Your task to perform on an android device: toggle translation in the chrome app Image 0: 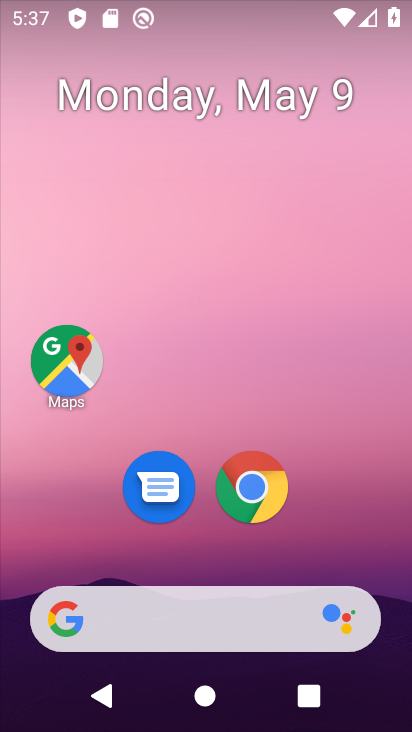
Step 0: drag from (334, 548) to (280, 171)
Your task to perform on an android device: toggle translation in the chrome app Image 1: 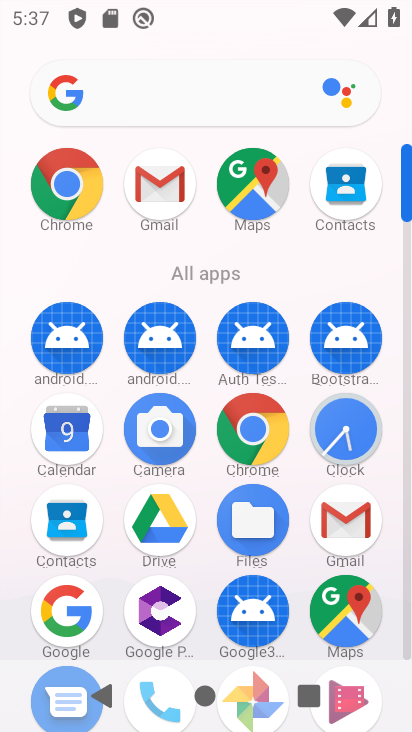
Step 1: click (63, 212)
Your task to perform on an android device: toggle translation in the chrome app Image 2: 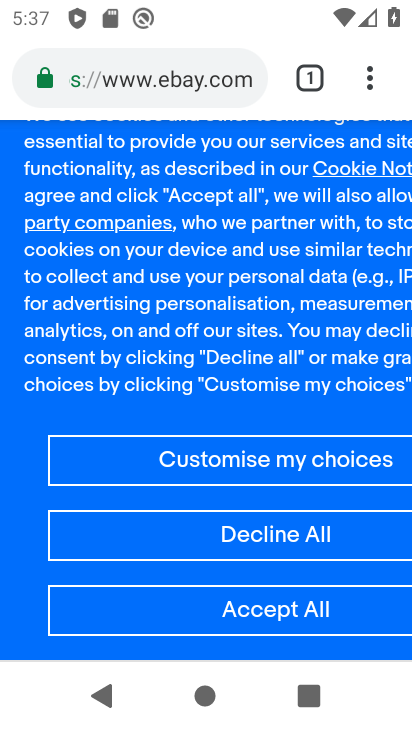
Step 2: click (368, 79)
Your task to perform on an android device: toggle translation in the chrome app Image 3: 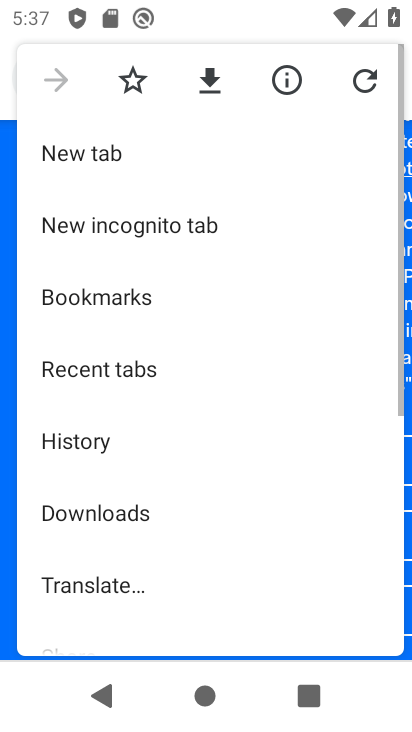
Step 3: drag from (180, 566) to (192, 169)
Your task to perform on an android device: toggle translation in the chrome app Image 4: 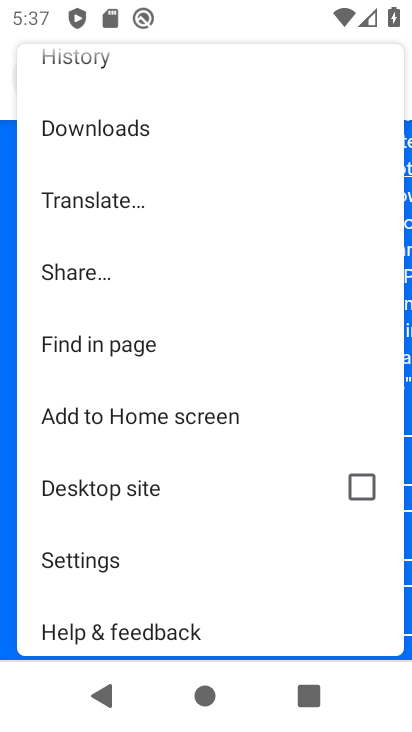
Step 4: click (104, 565)
Your task to perform on an android device: toggle translation in the chrome app Image 5: 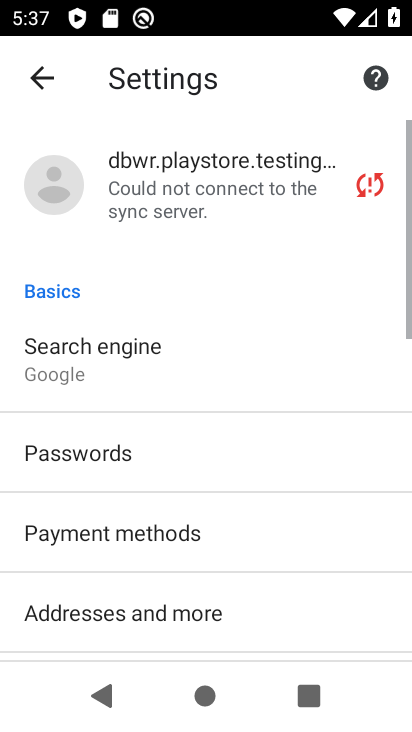
Step 5: drag from (224, 577) to (268, 237)
Your task to perform on an android device: toggle translation in the chrome app Image 6: 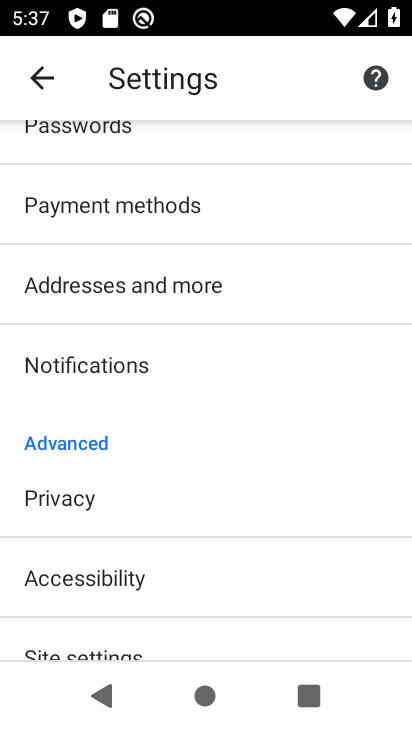
Step 6: drag from (164, 584) to (268, 268)
Your task to perform on an android device: toggle translation in the chrome app Image 7: 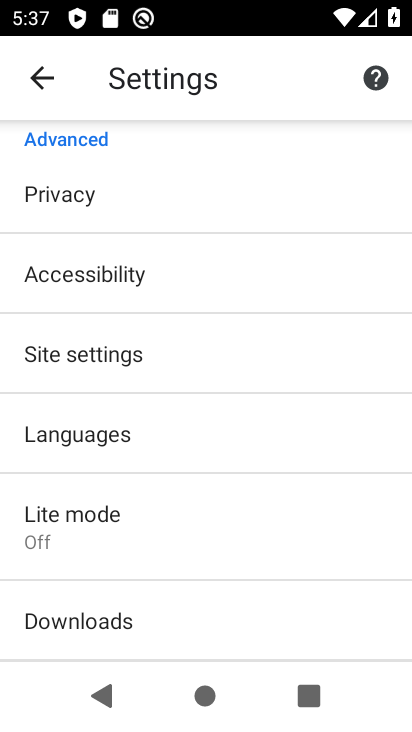
Step 7: click (74, 442)
Your task to perform on an android device: toggle translation in the chrome app Image 8: 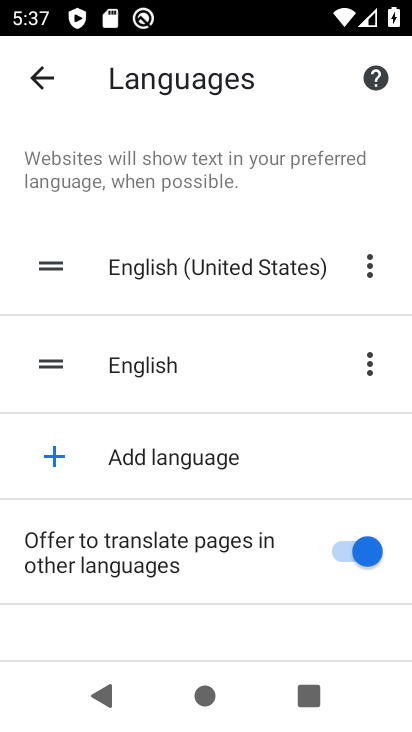
Step 8: click (347, 561)
Your task to perform on an android device: toggle translation in the chrome app Image 9: 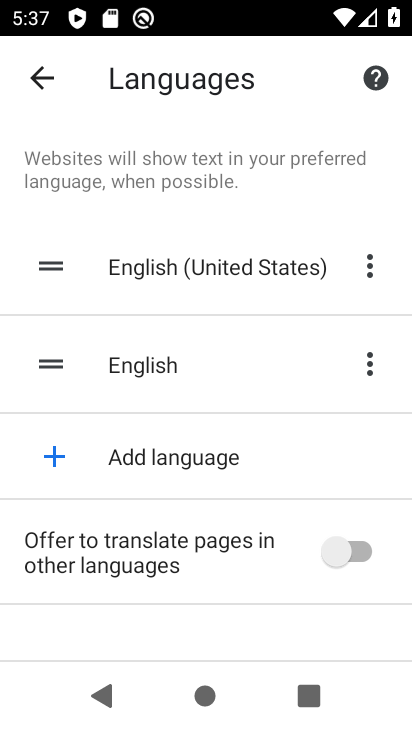
Step 9: task complete